Your task to perform on an android device: Show the shopping cart on bestbuy.com. Add "razer nari" to the cart on bestbuy.com, then select checkout. Image 0: 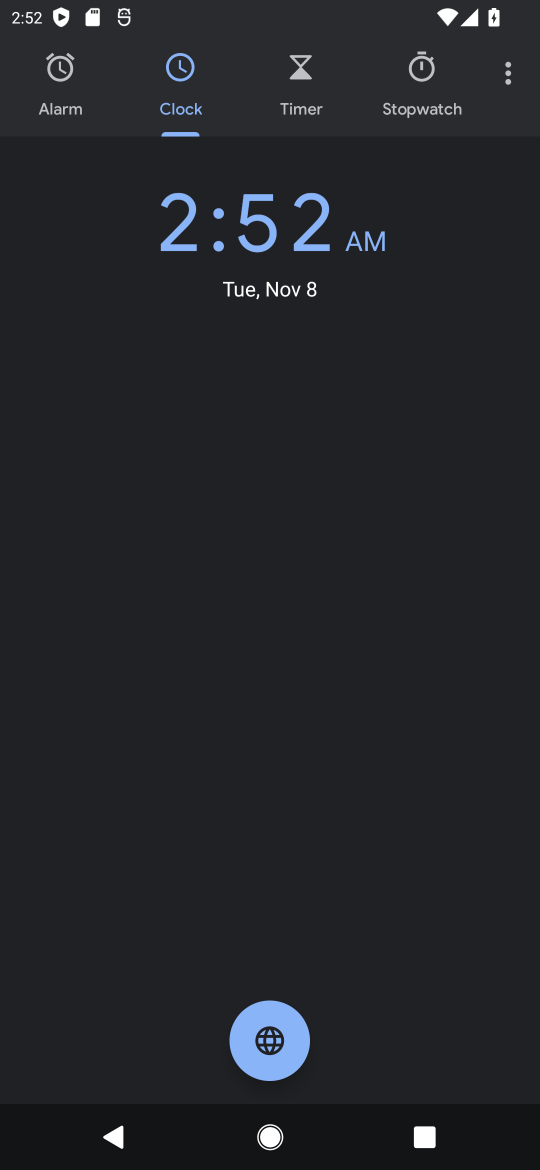
Step 0: press home button
Your task to perform on an android device: Show the shopping cart on bestbuy.com. Add "razer nari" to the cart on bestbuy.com, then select checkout. Image 1: 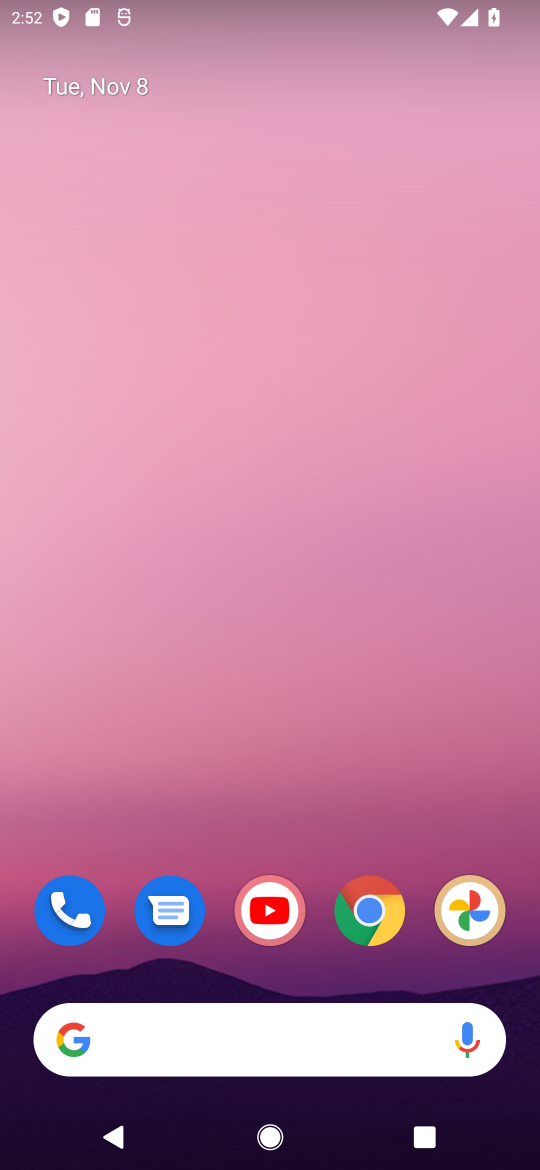
Step 1: drag from (311, 980) to (322, 34)
Your task to perform on an android device: Show the shopping cart on bestbuy.com. Add "razer nari" to the cart on bestbuy.com, then select checkout. Image 2: 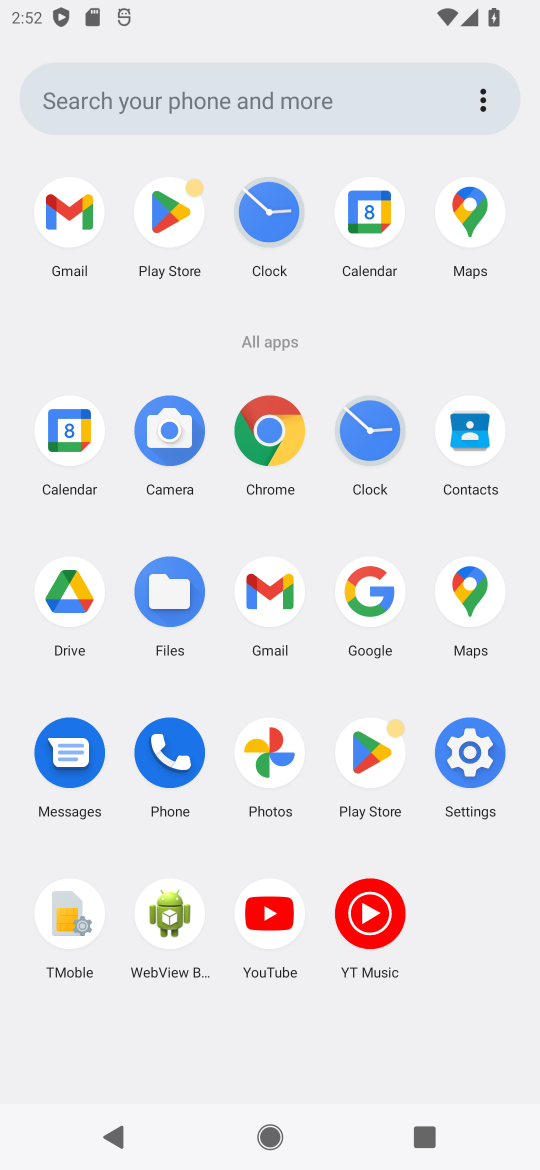
Step 2: click (270, 428)
Your task to perform on an android device: Show the shopping cart on bestbuy.com. Add "razer nari" to the cart on bestbuy.com, then select checkout. Image 3: 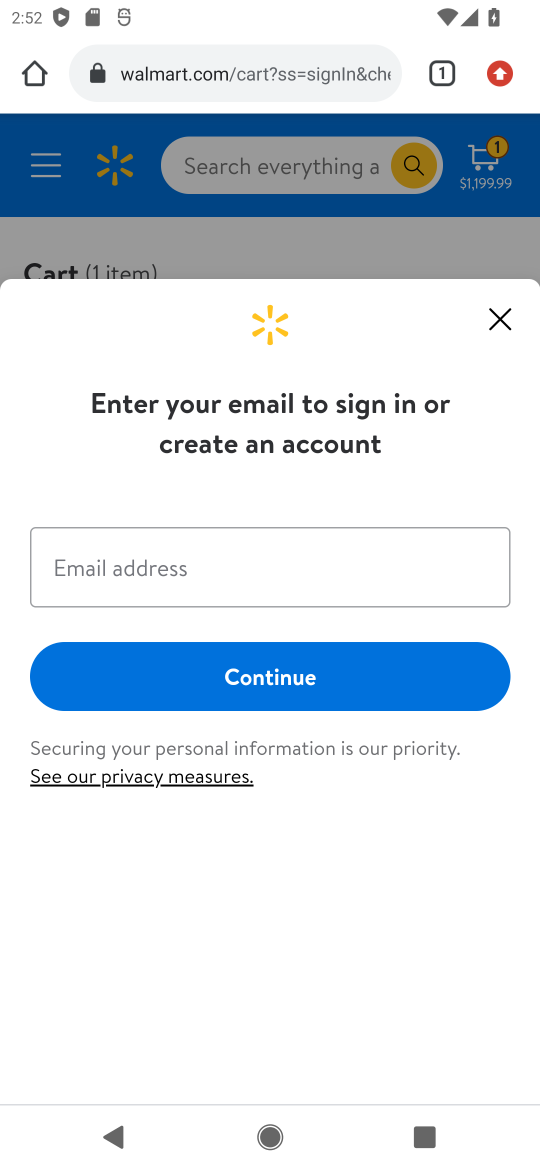
Step 3: click (301, 74)
Your task to perform on an android device: Show the shopping cart on bestbuy.com. Add "razer nari" to the cart on bestbuy.com, then select checkout. Image 4: 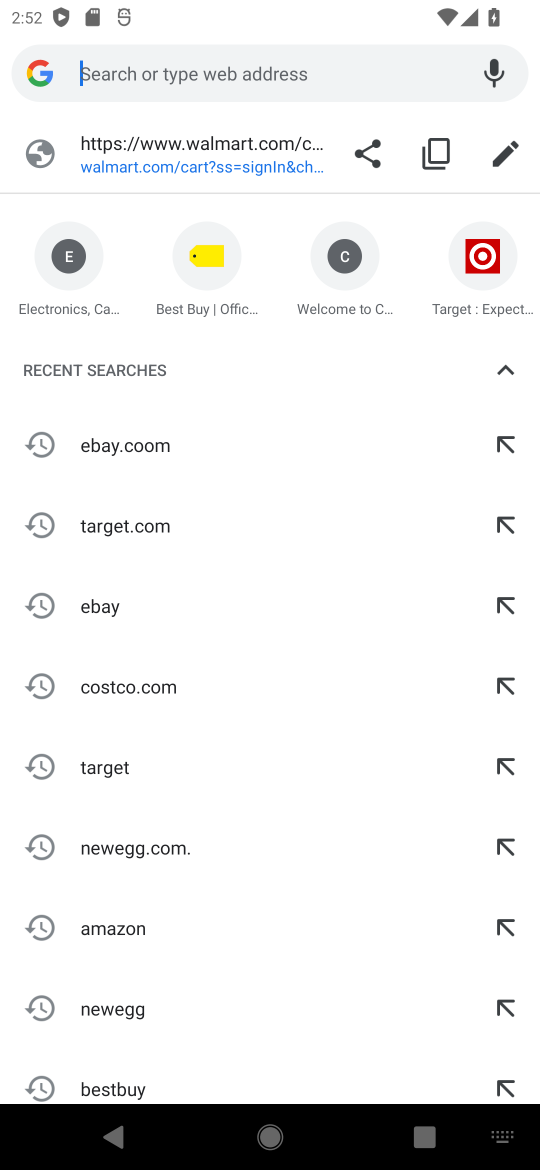
Step 4: type "bestbuy.com"
Your task to perform on an android device: Show the shopping cart on bestbuy.com. Add "razer nari" to the cart on bestbuy.com, then select checkout. Image 5: 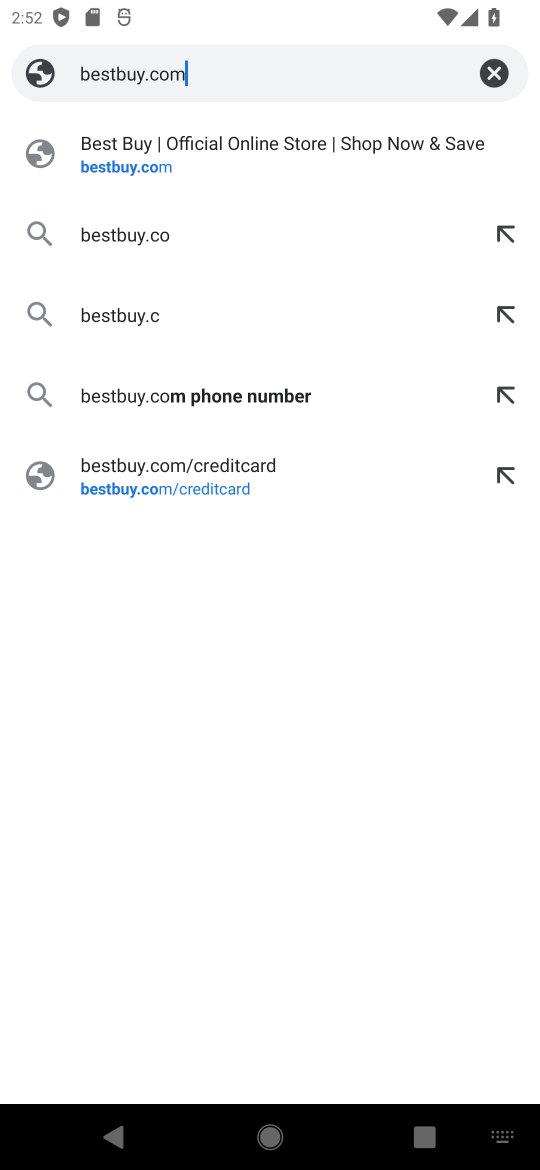
Step 5: press enter
Your task to perform on an android device: Show the shopping cart on bestbuy.com. Add "razer nari" to the cart on bestbuy.com, then select checkout. Image 6: 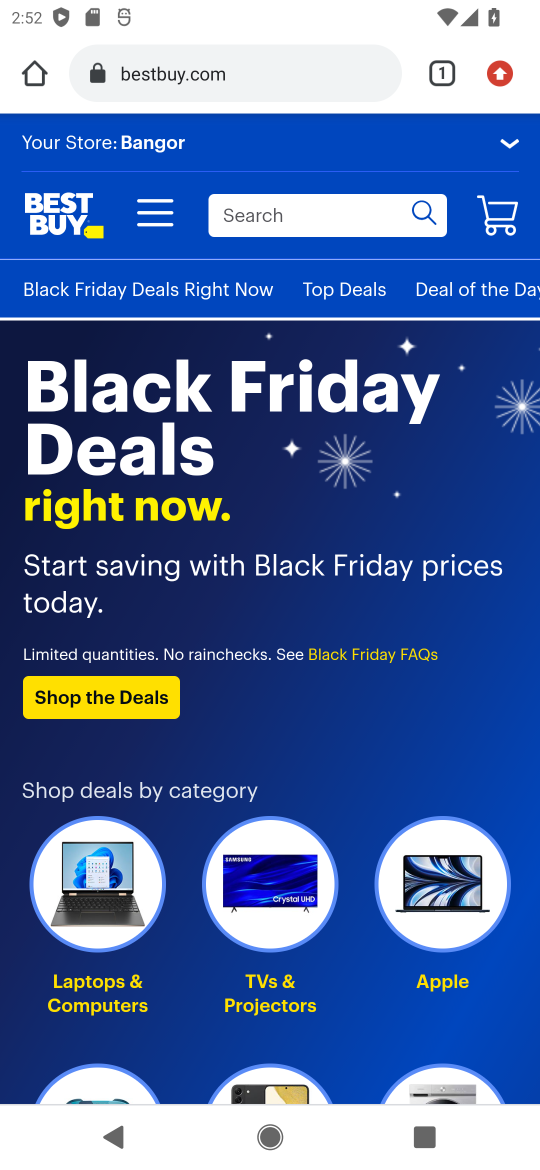
Step 6: click (498, 211)
Your task to perform on an android device: Show the shopping cart on bestbuy.com. Add "razer nari" to the cart on bestbuy.com, then select checkout. Image 7: 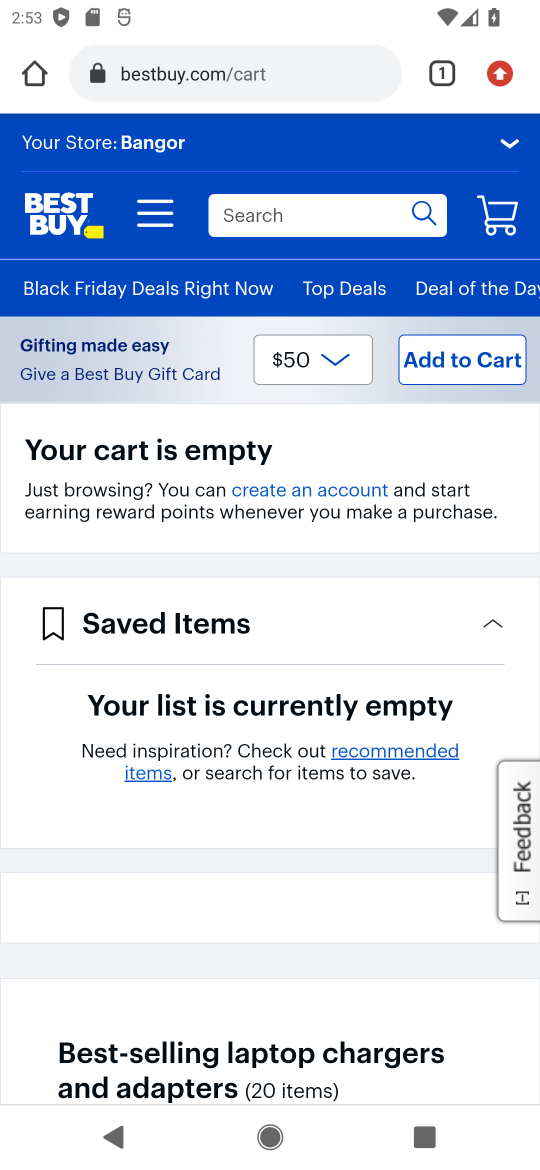
Step 7: click (276, 213)
Your task to perform on an android device: Show the shopping cart on bestbuy.com. Add "razer nari" to the cart on bestbuy.com, then select checkout. Image 8: 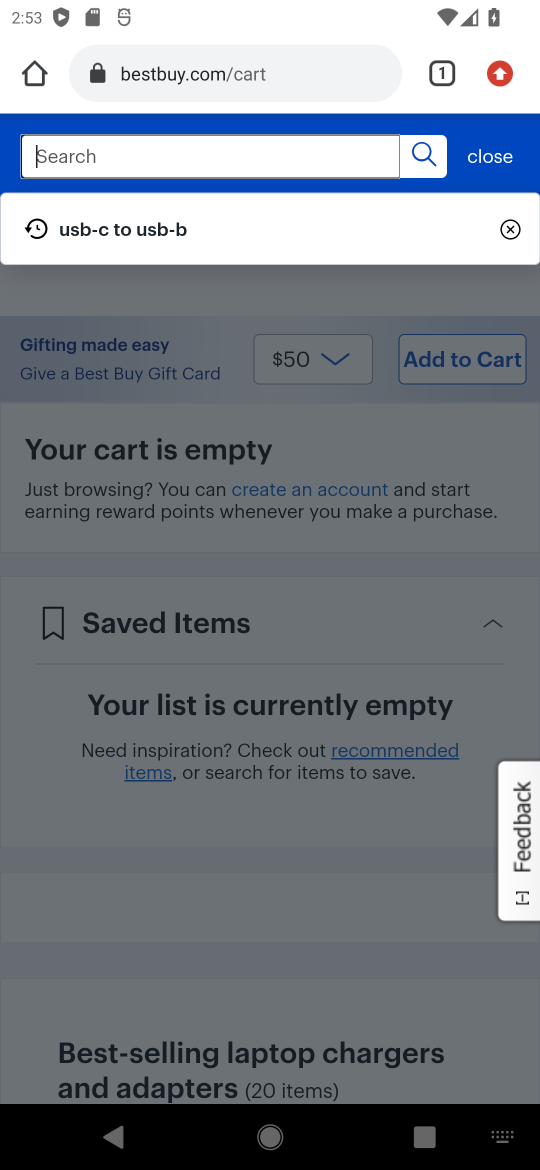
Step 8: type "razer nari"
Your task to perform on an android device: Show the shopping cart on bestbuy.com. Add "razer nari" to the cart on bestbuy.com, then select checkout. Image 9: 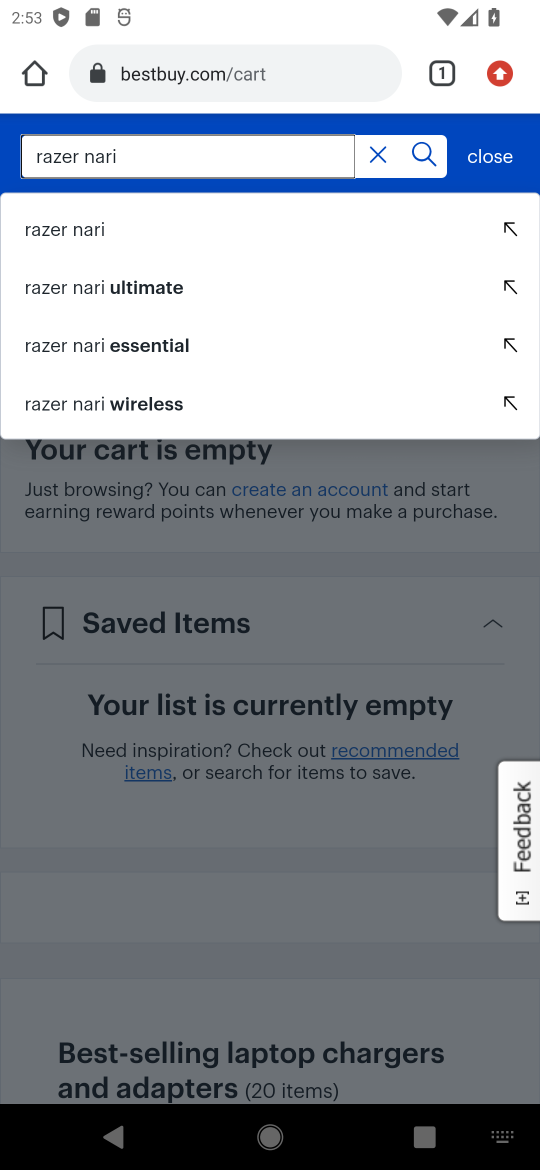
Step 9: press enter
Your task to perform on an android device: Show the shopping cart on bestbuy.com. Add "razer nari" to the cart on bestbuy.com, then select checkout. Image 10: 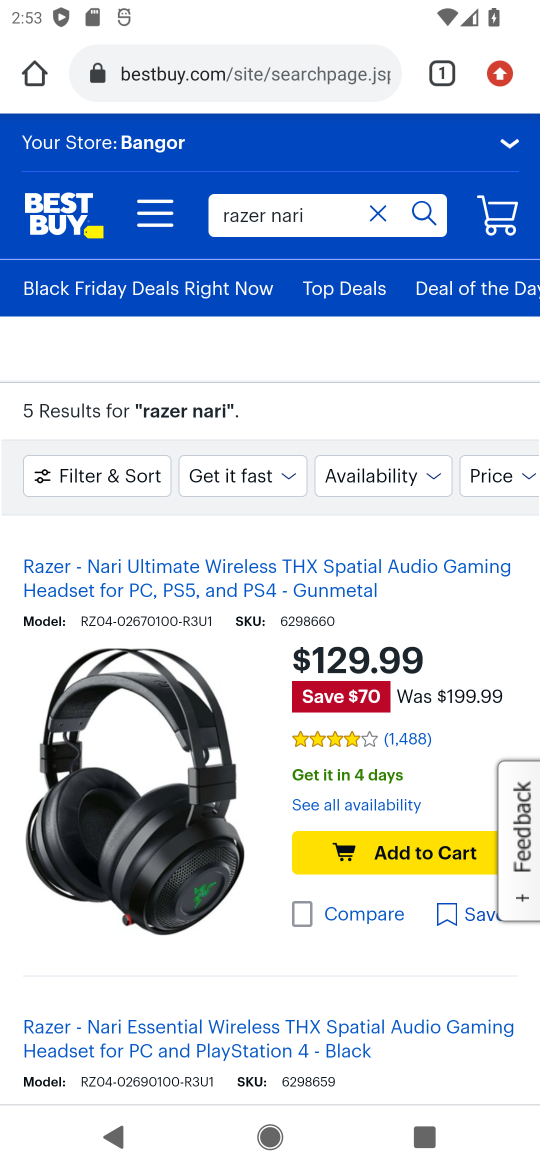
Step 10: click (428, 858)
Your task to perform on an android device: Show the shopping cart on bestbuy.com. Add "razer nari" to the cart on bestbuy.com, then select checkout. Image 11: 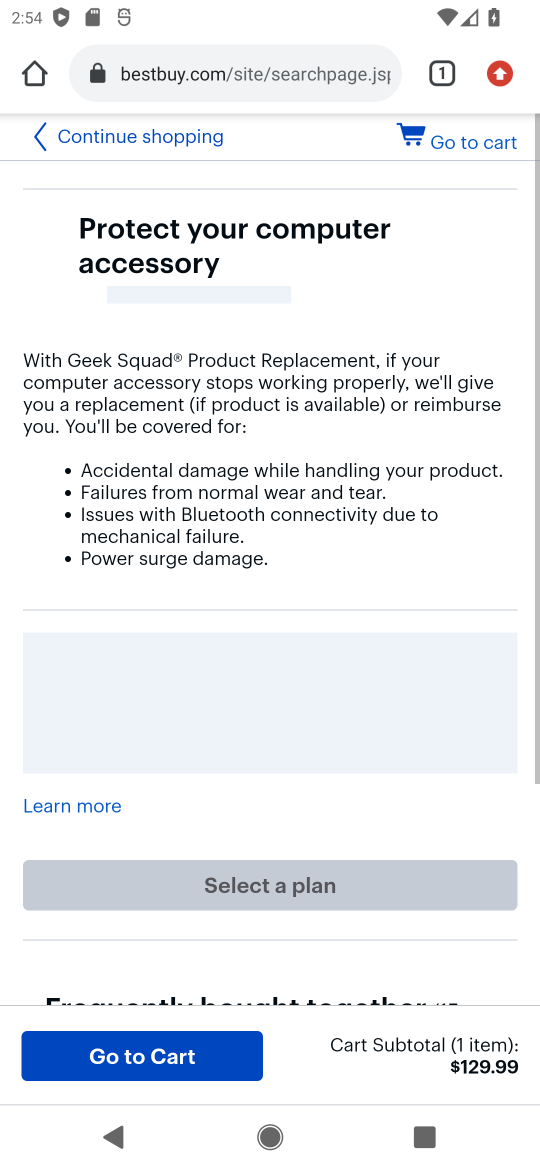
Step 11: click (174, 1036)
Your task to perform on an android device: Show the shopping cart on bestbuy.com. Add "razer nari" to the cart on bestbuy.com, then select checkout. Image 12: 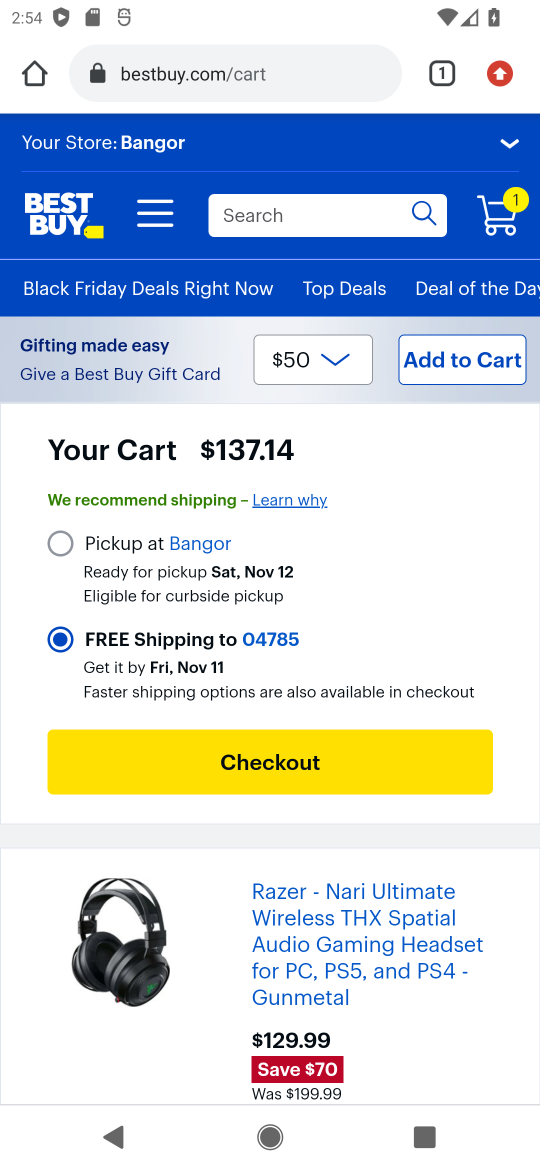
Step 12: click (313, 744)
Your task to perform on an android device: Show the shopping cart on bestbuy.com. Add "razer nari" to the cart on bestbuy.com, then select checkout. Image 13: 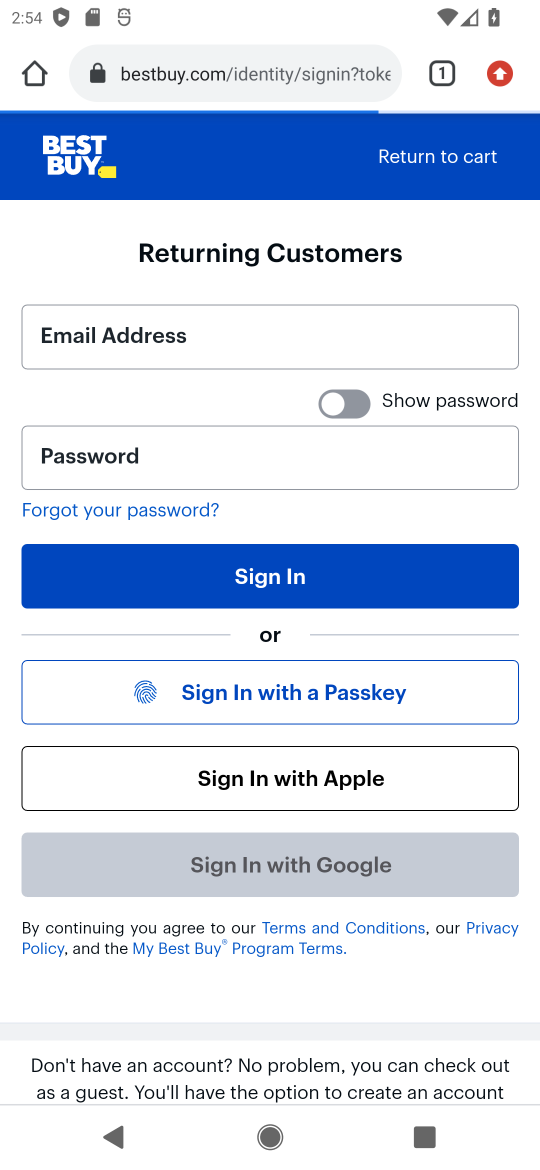
Step 13: task complete